Your task to perform on an android device: toggle sleep mode Image 0: 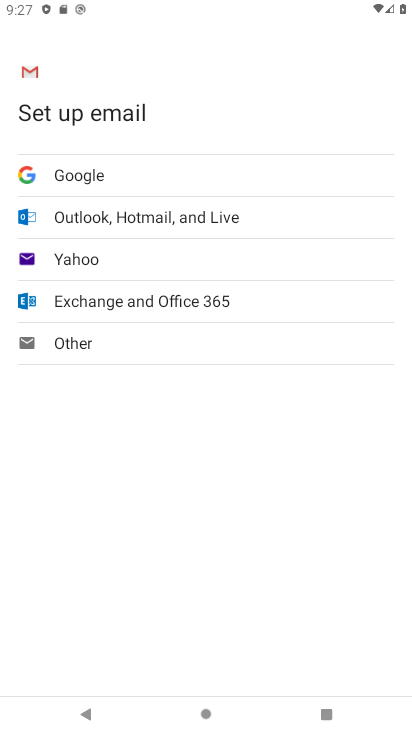
Step 0: press back button
Your task to perform on an android device: toggle sleep mode Image 1: 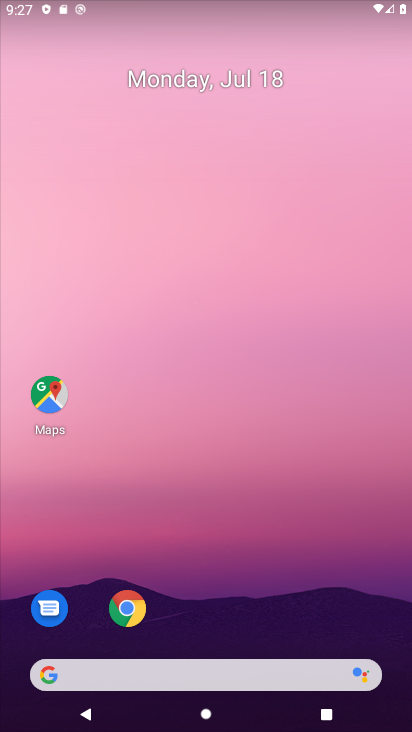
Step 1: drag from (255, 676) to (232, 118)
Your task to perform on an android device: toggle sleep mode Image 2: 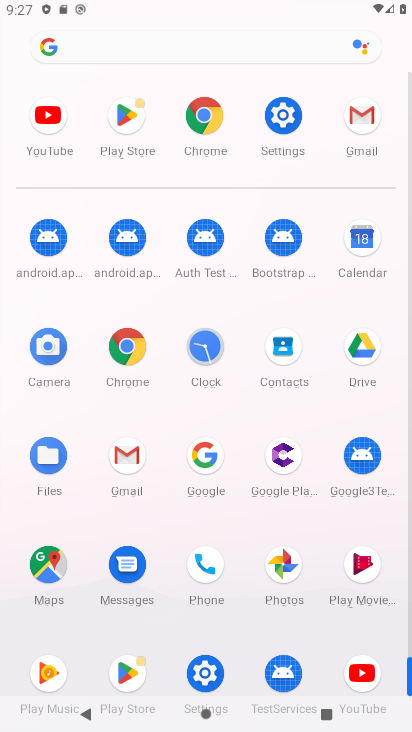
Step 2: click (199, 108)
Your task to perform on an android device: toggle sleep mode Image 3: 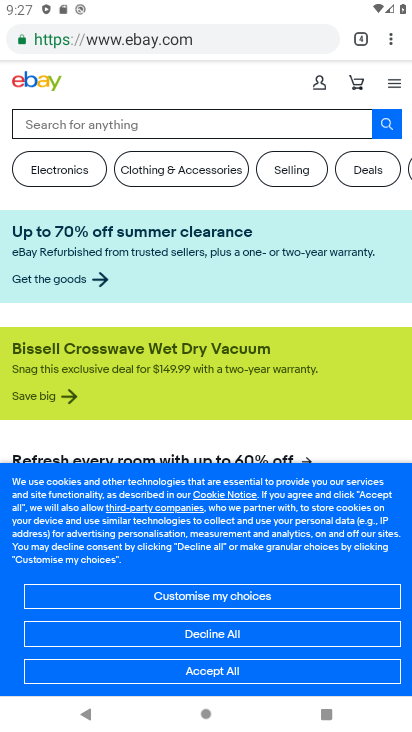
Step 3: press back button
Your task to perform on an android device: toggle sleep mode Image 4: 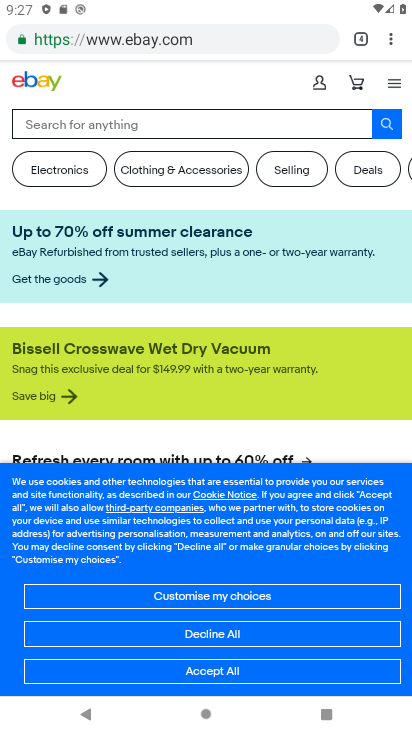
Step 4: press back button
Your task to perform on an android device: toggle sleep mode Image 5: 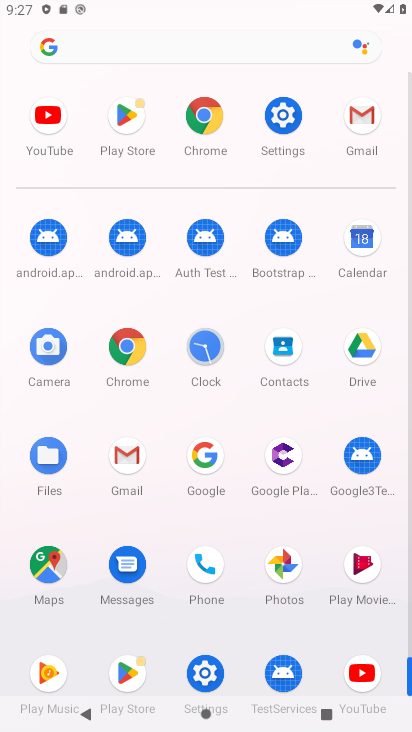
Step 5: click (287, 116)
Your task to perform on an android device: toggle sleep mode Image 6: 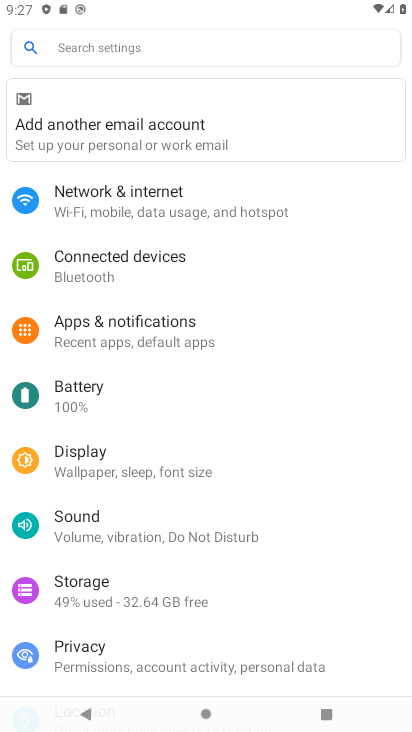
Step 6: click (101, 463)
Your task to perform on an android device: toggle sleep mode Image 7: 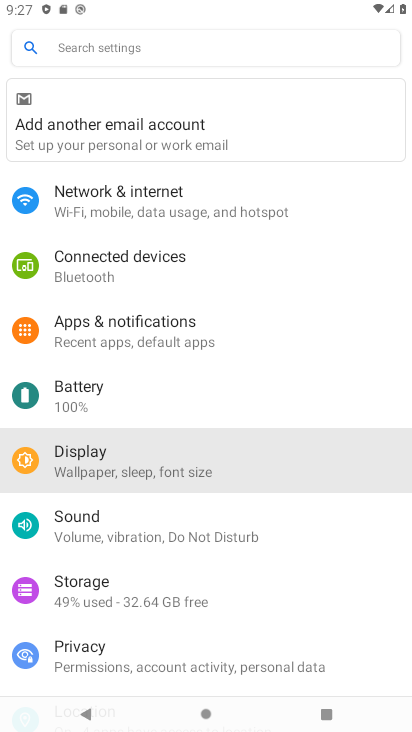
Step 7: click (123, 483)
Your task to perform on an android device: toggle sleep mode Image 8: 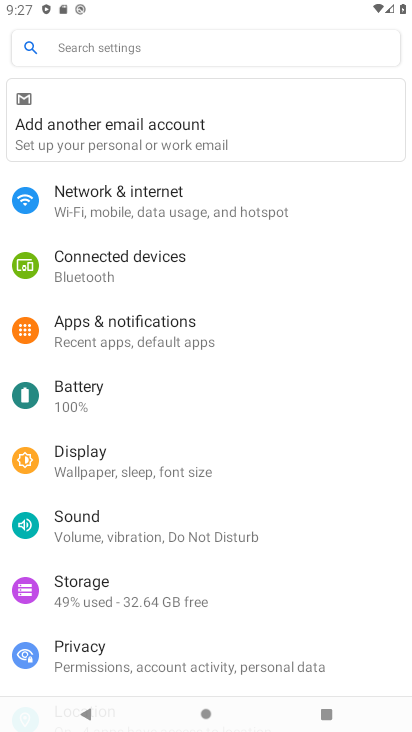
Step 8: click (124, 483)
Your task to perform on an android device: toggle sleep mode Image 9: 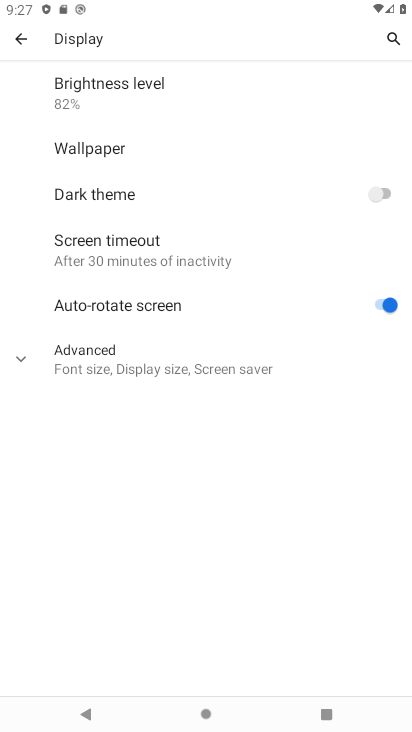
Step 9: click (135, 253)
Your task to perform on an android device: toggle sleep mode Image 10: 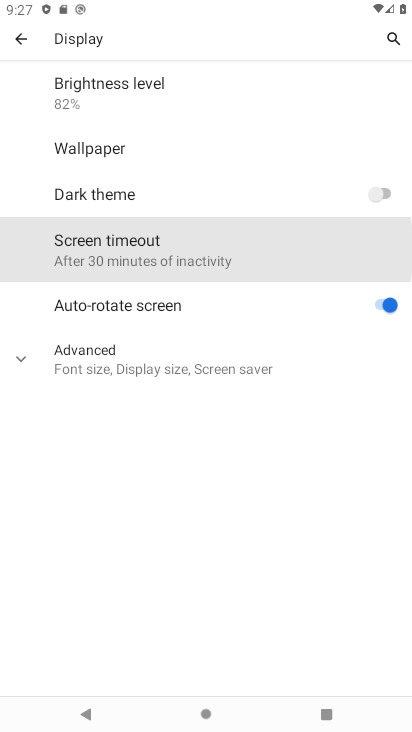
Step 10: click (135, 253)
Your task to perform on an android device: toggle sleep mode Image 11: 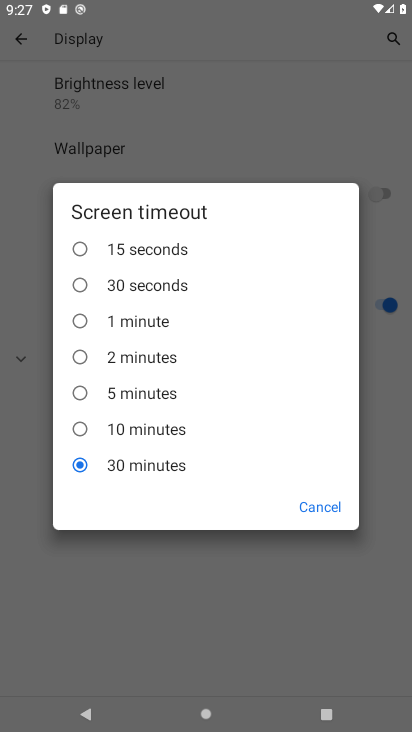
Step 11: click (76, 362)
Your task to perform on an android device: toggle sleep mode Image 12: 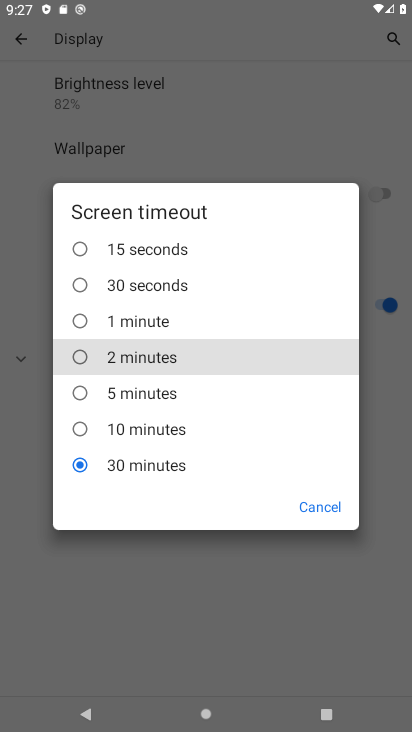
Step 12: click (77, 363)
Your task to perform on an android device: toggle sleep mode Image 13: 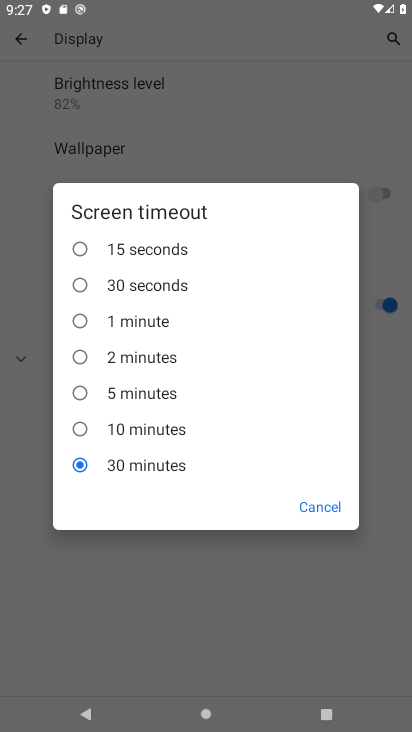
Step 13: click (78, 364)
Your task to perform on an android device: toggle sleep mode Image 14: 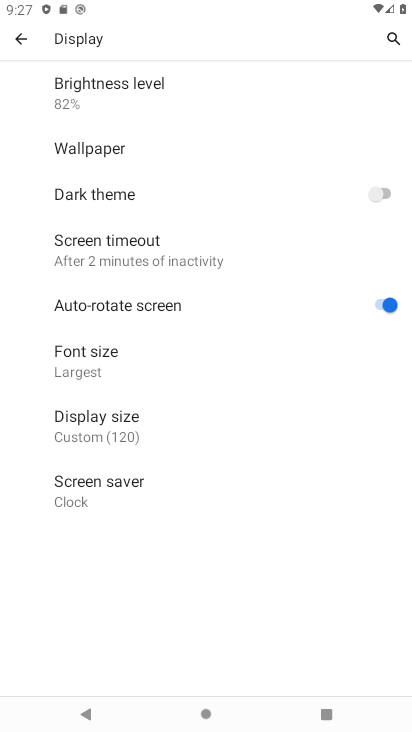
Step 14: task complete